Your task to perform on an android device: What's the news? Image 0: 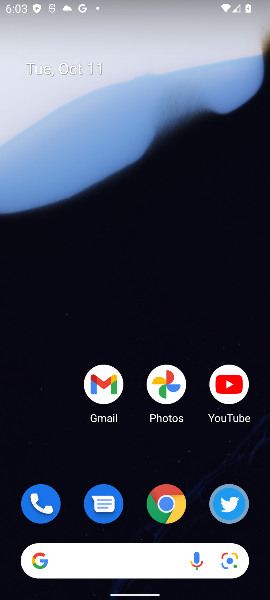
Step 0: click (87, 545)
Your task to perform on an android device: What's the news? Image 1: 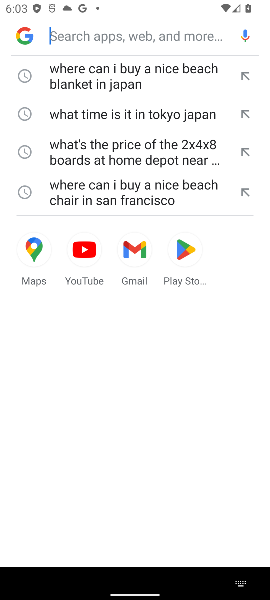
Step 1: click (120, 42)
Your task to perform on an android device: What's the news? Image 2: 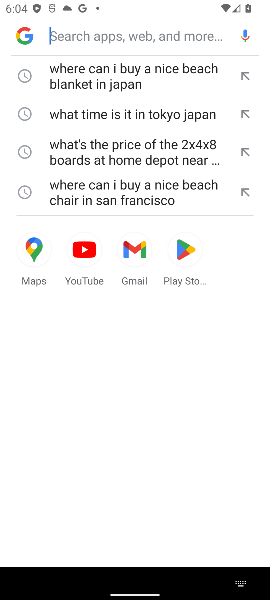
Step 2: type "What's the news?"
Your task to perform on an android device: What's the news? Image 3: 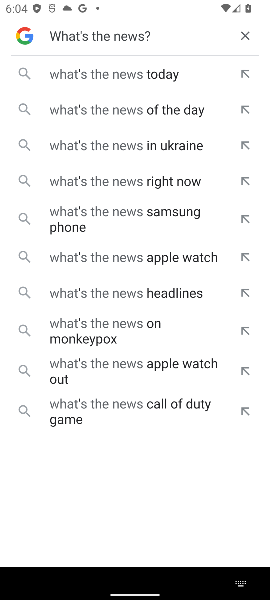
Step 3: click (111, 79)
Your task to perform on an android device: What's the news? Image 4: 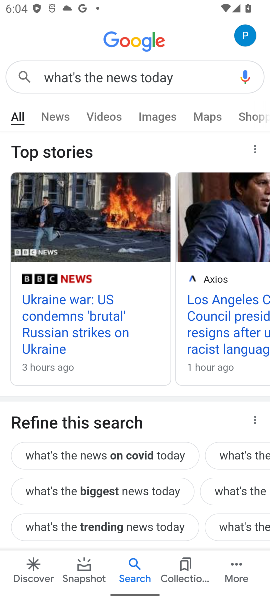
Step 4: task complete